Your task to perform on an android device: Toggle the flashlight Image 0: 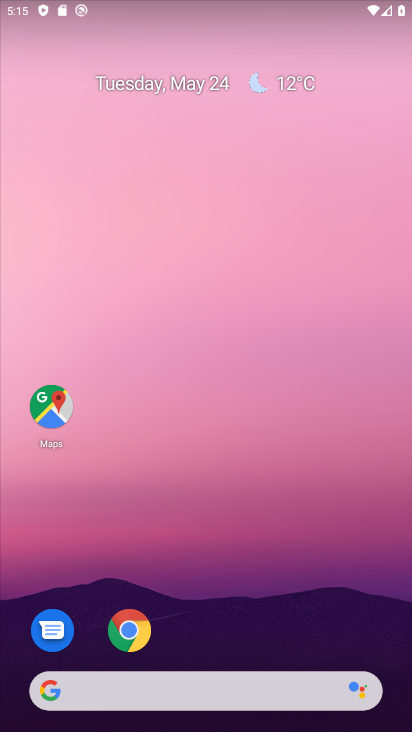
Step 0: click (135, 47)
Your task to perform on an android device: Toggle the flashlight Image 1: 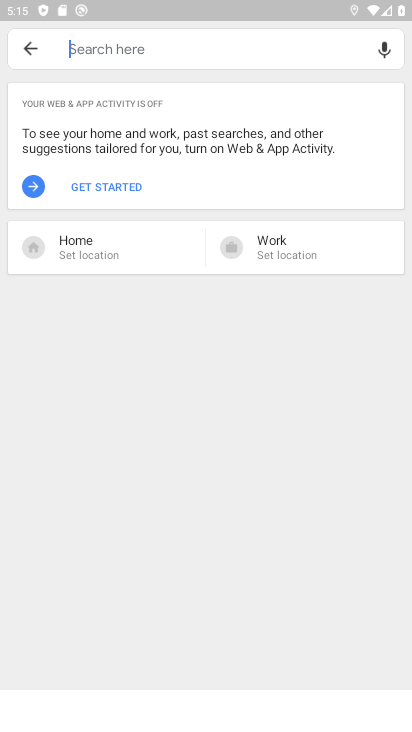
Step 1: press home button
Your task to perform on an android device: Toggle the flashlight Image 2: 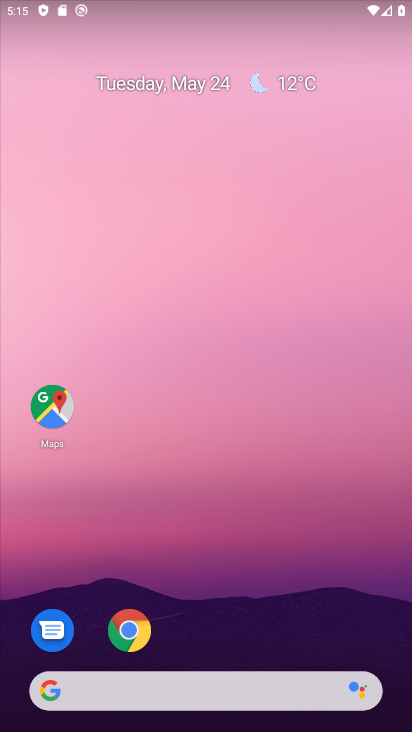
Step 2: drag from (209, 655) to (202, 12)
Your task to perform on an android device: Toggle the flashlight Image 3: 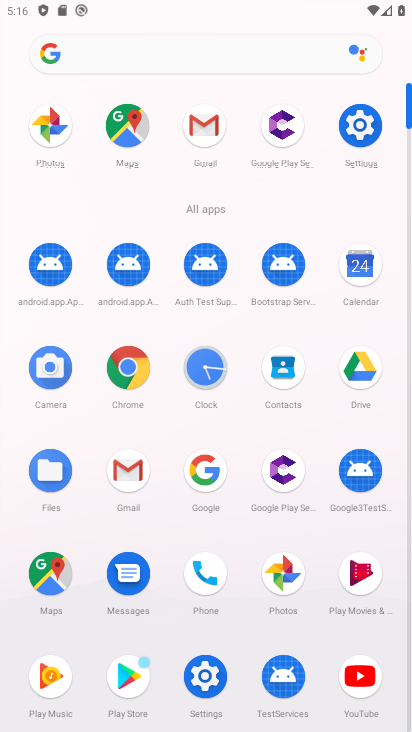
Step 3: click (364, 139)
Your task to perform on an android device: Toggle the flashlight Image 4: 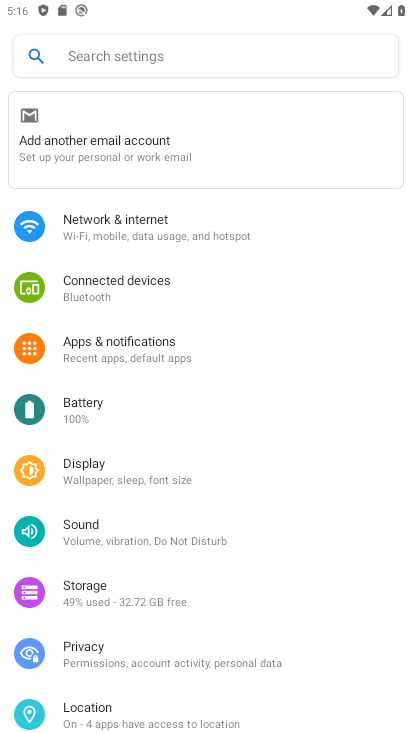
Step 4: task complete